Your task to perform on an android device: open a bookmark in the chrome app Image 0: 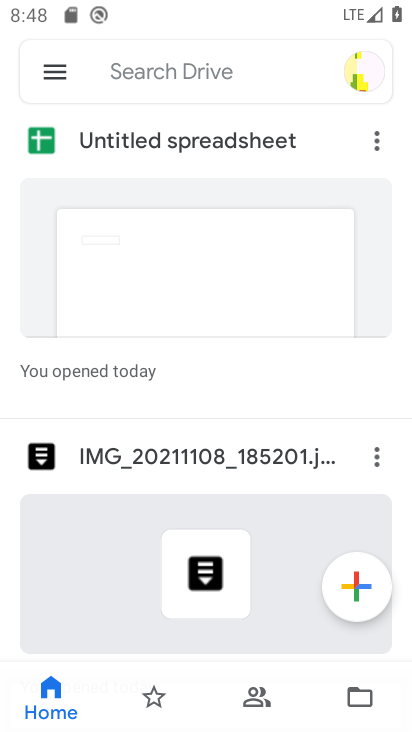
Step 0: press home button
Your task to perform on an android device: open a bookmark in the chrome app Image 1: 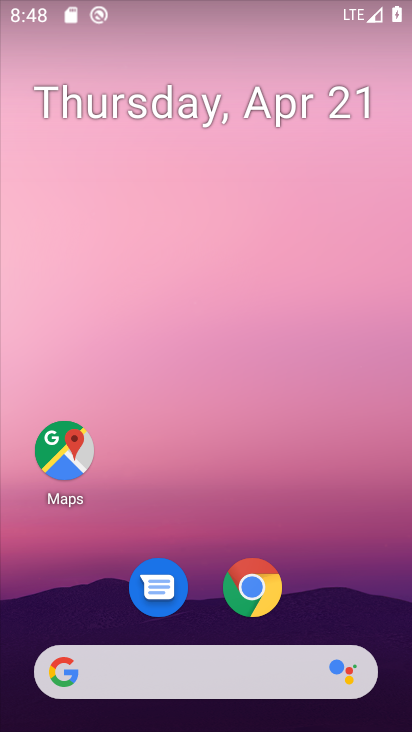
Step 1: drag from (374, 625) to (349, 234)
Your task to perform on an android device: open a bookmark in the chrome app Image 2: 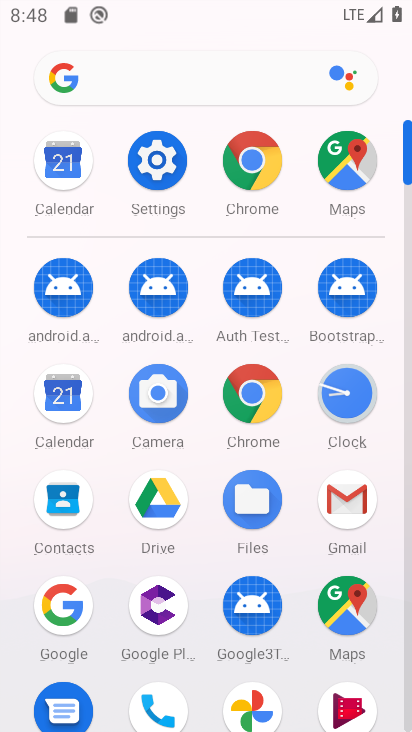
Step 2: click (246, 157)
Your task to perform on an android device: open a bookmark in the chrome app Image 3: 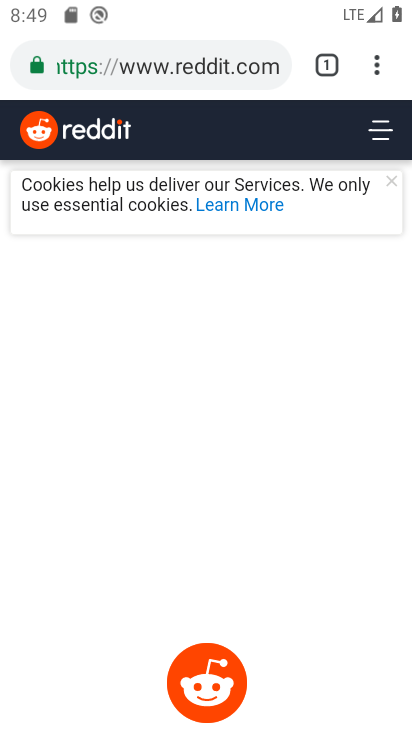
Step 3: click (375, 60)
Your task to perform on an android device: open a bookmark in the chrome app Image 4: 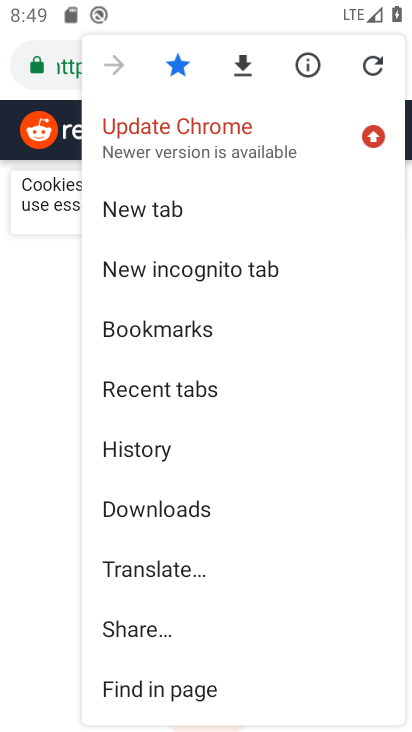
Step 4: click (166, 327)
Your task to perform on an android device: open a bookmark in the chrome app Image 5: 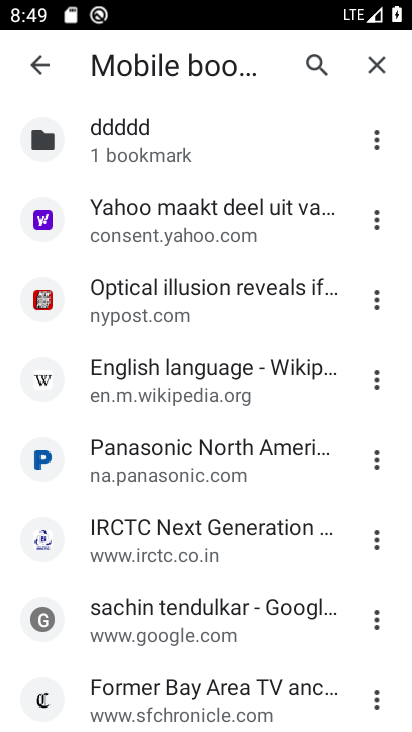
Step 5: click (103, 453)
Your task to perform on an android device: open a bookmark in the chrome app Image 6: 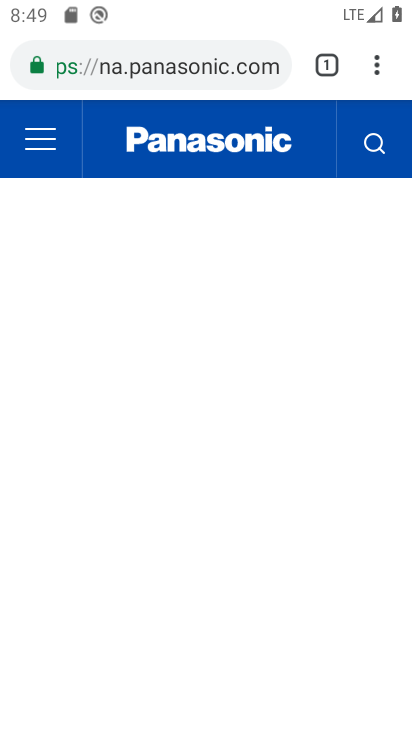
Step 6: task complete